Your task to perform on an android device: toggle priority inbox in the gmail app Image 0: 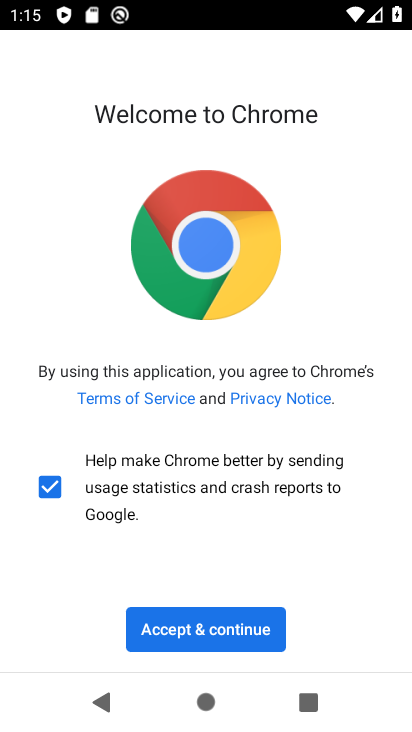
Step 0: press home button
Your task to perform on an android device: toggle priority inbox in the gmail app Image 1: 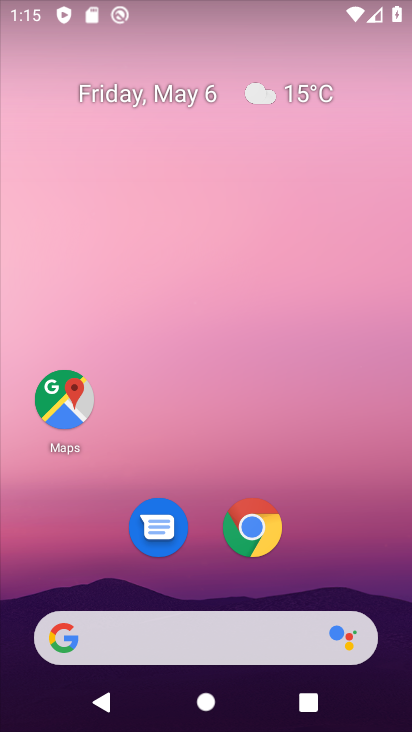
Step 1: drag from (217, 563) to (242, 133)
Your task to perform on an android device: toggle priority inbox in the gmail app Image 2: 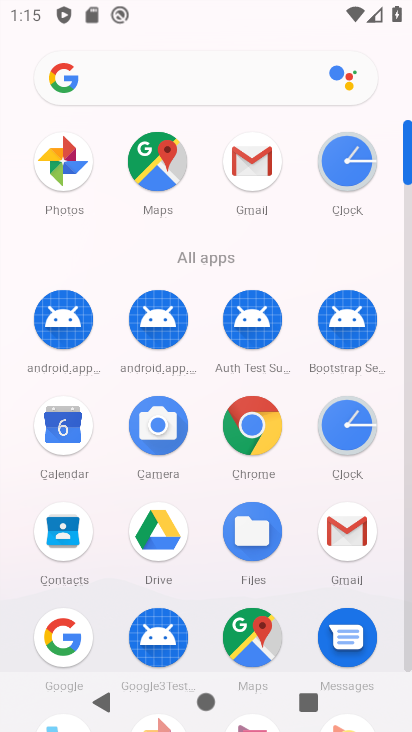
Step 2: click (256, 164)
Your task to perform on an android device: toggle priority inbox in the gmail app Image 3: 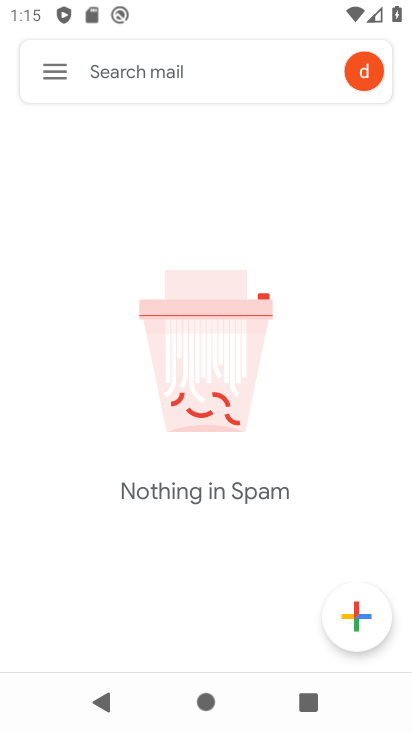
Step 3: click (54, 73)
Your task to perform on an android device: toggle priority inbox in the gmail app Image 4: 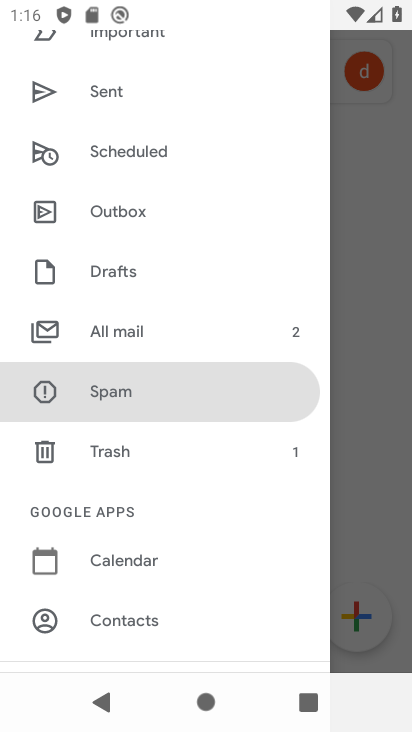
Step 4: drag from (166, 585) to (228, 160)
Your task to perform on an android device: toggle priority inbox in the gmail app Image 5: 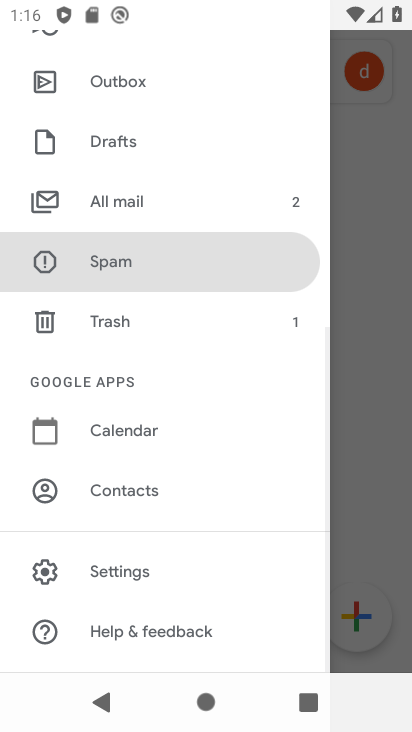
Step 5: click (129, 577)
Your task to perform on an android device: toggle priority inbox in the gmail app Image 6: 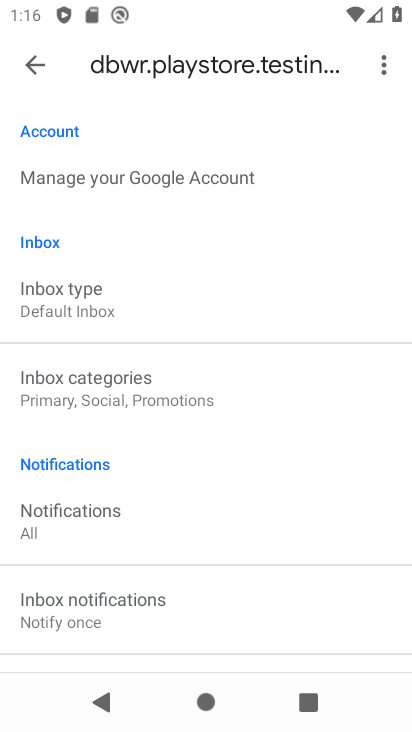
Step 6: click (167, 401)
Your task to perform on an android device: toggle priority inbox in the gmail app Image 7: 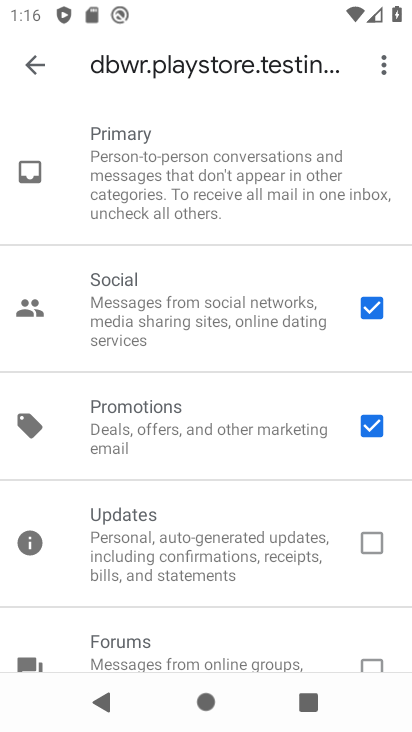
Step 7: drag from (188, 551) to (204, 255)
Your task to perform on an android device: toggle priority inbox in the gmail app Image 8: 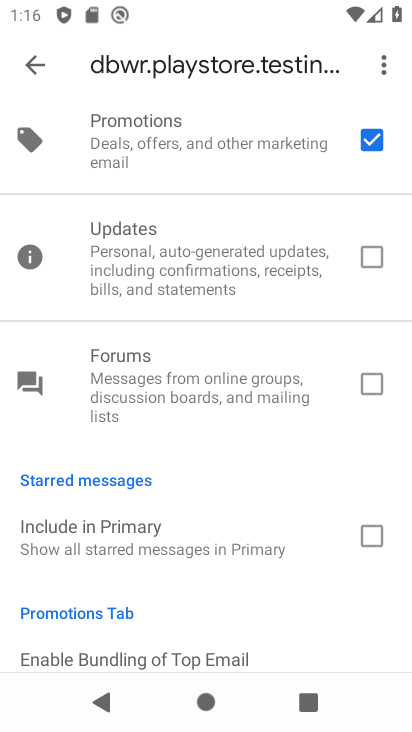
Step 8: drag from (204, 255) to (203, 595)
Your task to perform on an android device: toggle priority inbox in the gmail app Image 9: 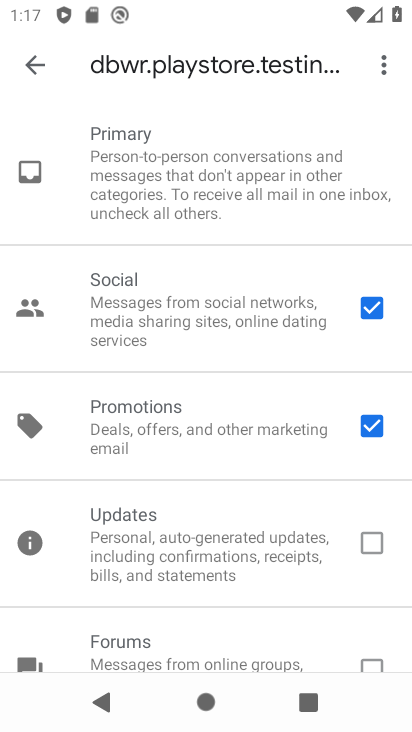
Step 9: drag from (249, 596) to (264, 276)
Your task to perform on an android device: toggle priority inbox in the gmail app Image 10: 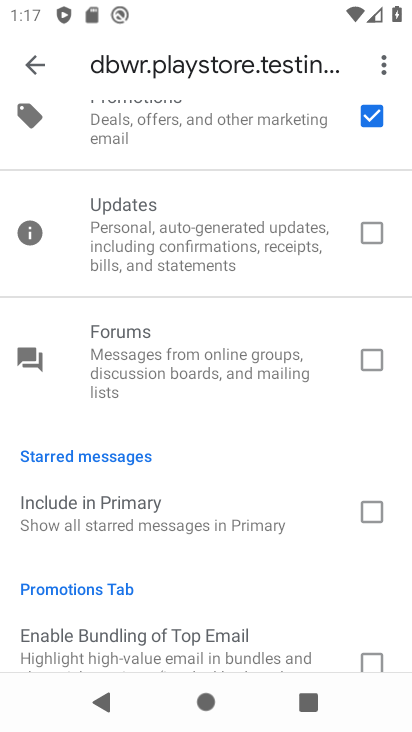
Step 10: drag from (149, 647) to (241, 266)
Your task to perform on an android device: toggle priority inbox in the gmail app Image 11: 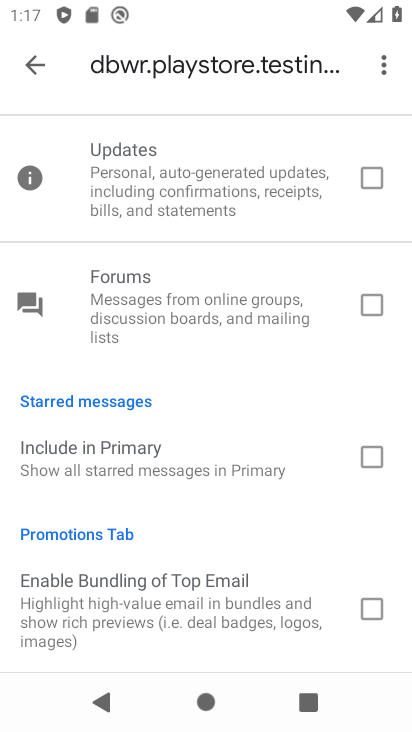
Step 11: drag from (249, 172) to (210, 641)
Your task to perform on an android device: toggle priority inbox in the gmail app Image 12: 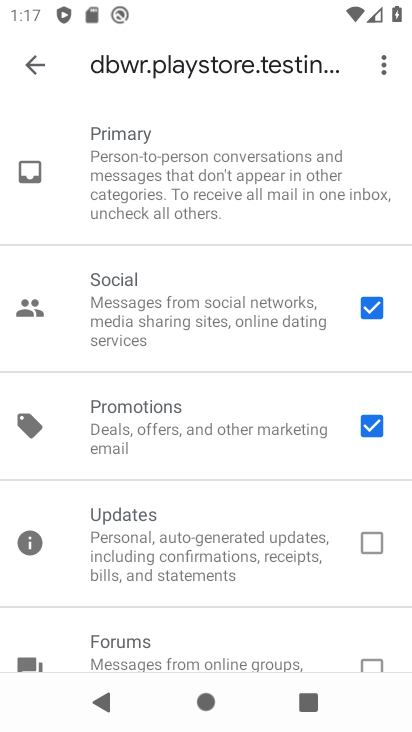
Step 12: drag from (201, 147) to (196, 478)
Your task to perform on an android device: toggle priority inbox in the gmail app Image 13: 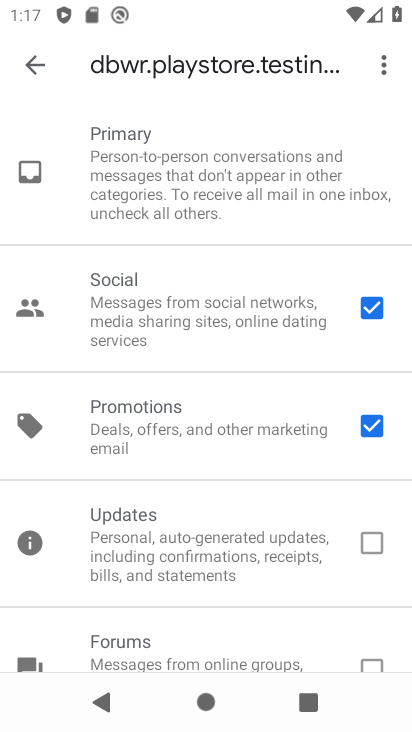
Step 13: click (165, 103)
Your task to perform on an android device: toggle priority inbox in the gmail app Image 14: 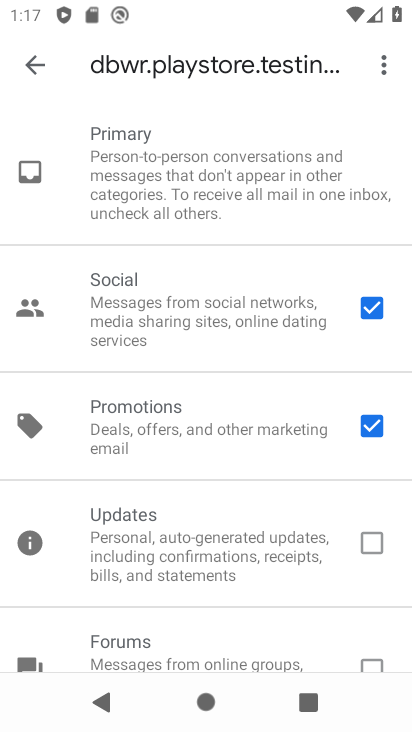
Step 14: drag from (165, 103) to (180, 394)
Your task to perform on an android device: toggle priority inbox in the gmail app Image 15: 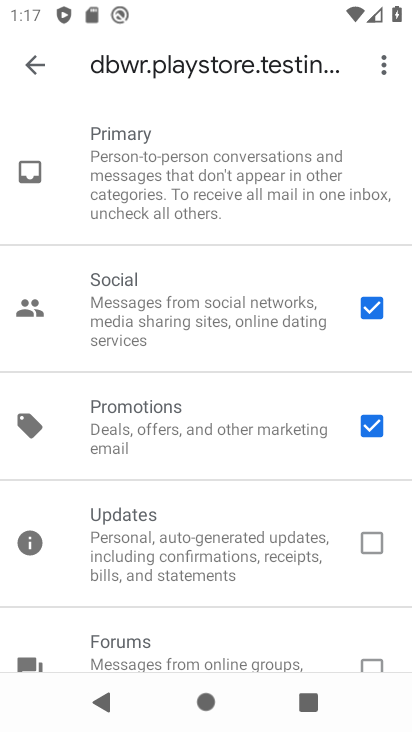
Step 15: click (45, 64)
Your task to perform on an android device: toggle priority inbox in the gmail app Image 16: 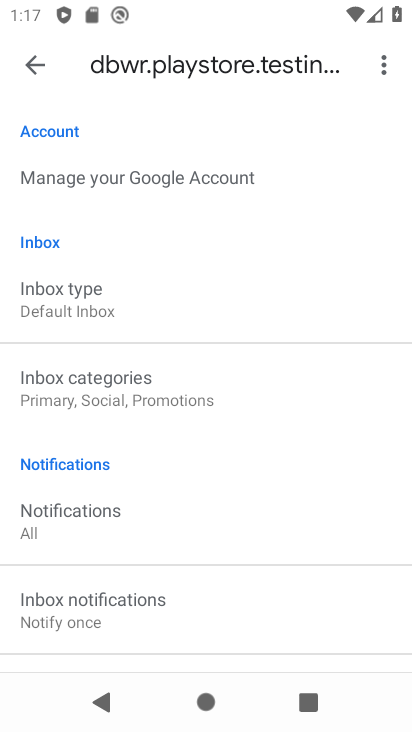
Step 16: click (140, 317)
Your task to perform on an android device: toggle priority inbox in the gmail app Image 17: 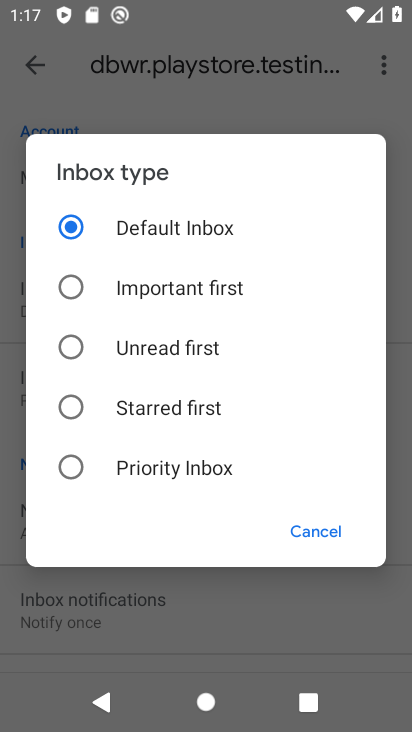
Step 17: click (137, 372)
Your task to perform on an android device: toggle priority inbox in the gmail app Image 18: 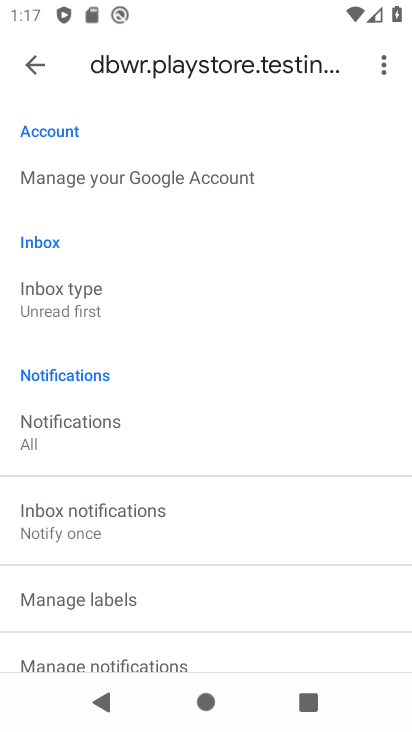
Step 18: task complete